Your task to perform on an android device: Go to wifi settings Image 0: 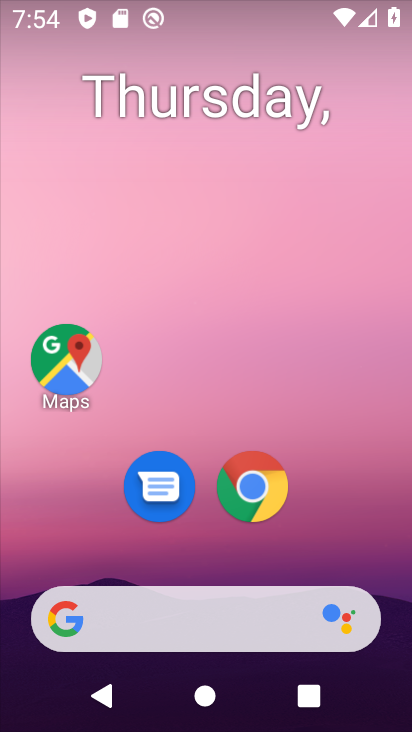
Step 0: drag from (291, 694) to (402, 112)
Your task to perform on an android device: Go to wifi settings Image 1: 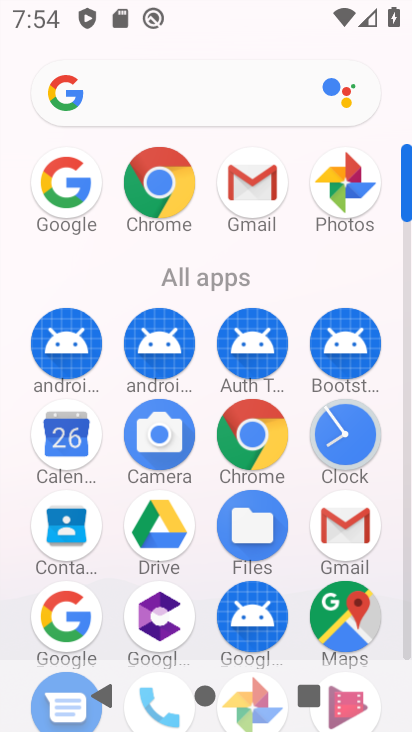
Step 1: drag from (249, 464) to (295, 66)
Your task to perform on an android device: Go to wifi settings Image 2: 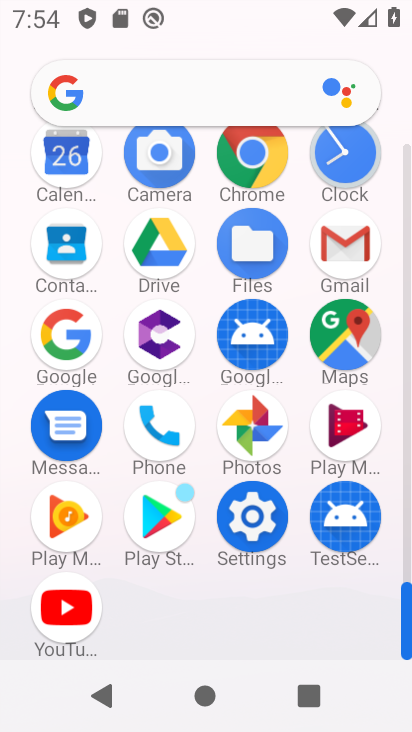
Step 2: click (249, 537)
Your task to perform on an android device: Go to wifi settings Image 3: 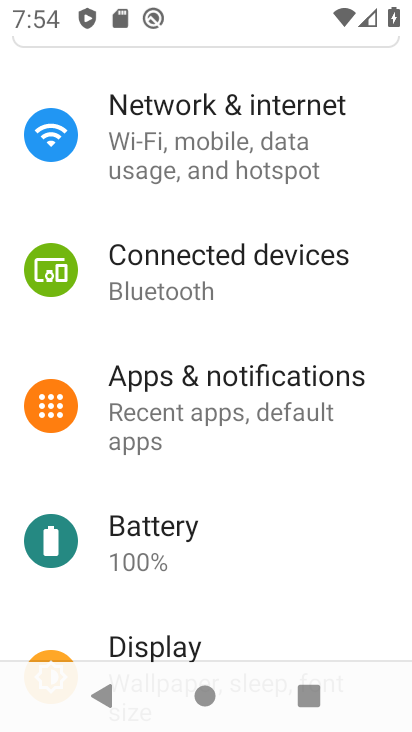
Step 3: drag from (315, 220) to (283, 607)
Your task to perform on an android device: Go to wifi settings Image 4: 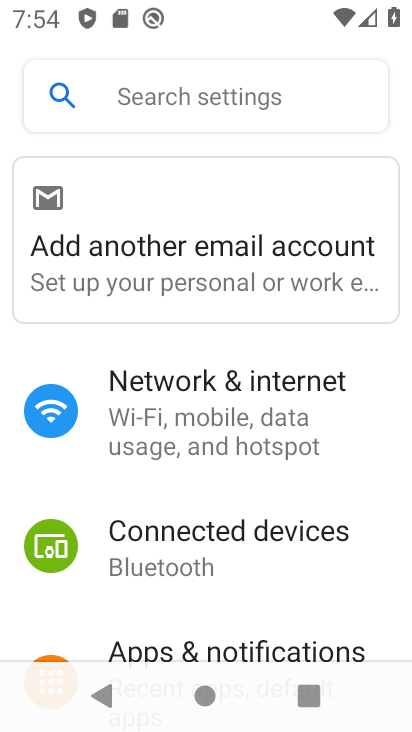
Step 4: click (258, 421)
Your task to perform on an android device: Go to wifi settings Image 5: 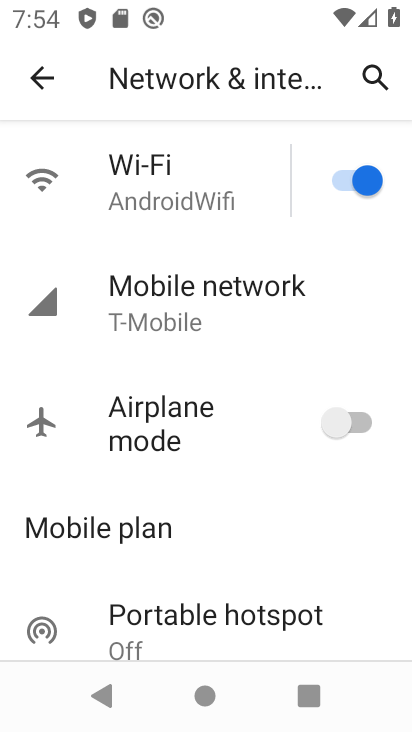
Step 5: click (159, 181)
Your task to perform on an android device: Go to wifi settings Image 6: 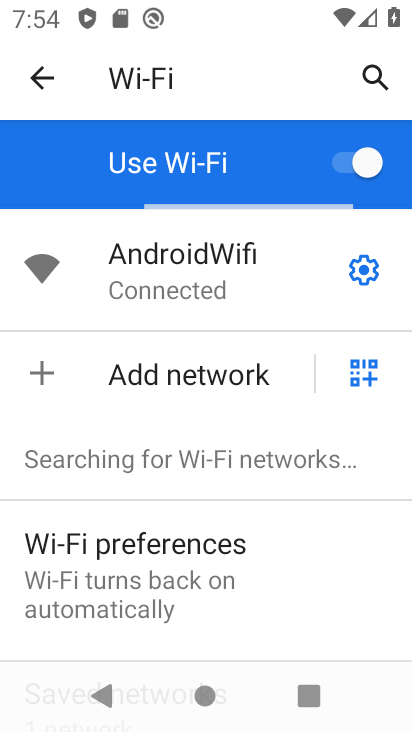
Step 6: task complete